Your task to perform on an android device: turn off improve location accuracy Image 0: 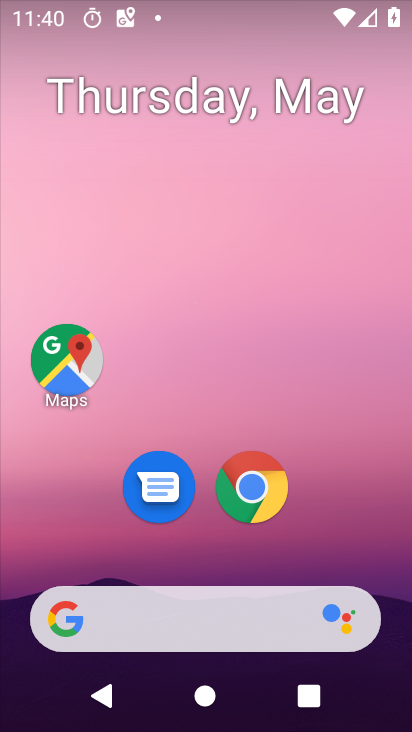
Step 0: drag from (338, 532) to (324, 95)
Your task to perform on an android device: turn off improve location accuracy Image 1: 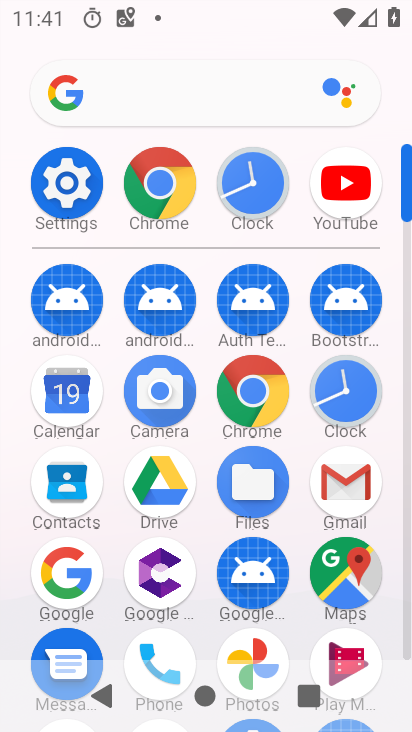
Step 1: click (66, 178)
Your task to perform on an android device: turn off improve location accuracy Image 2: 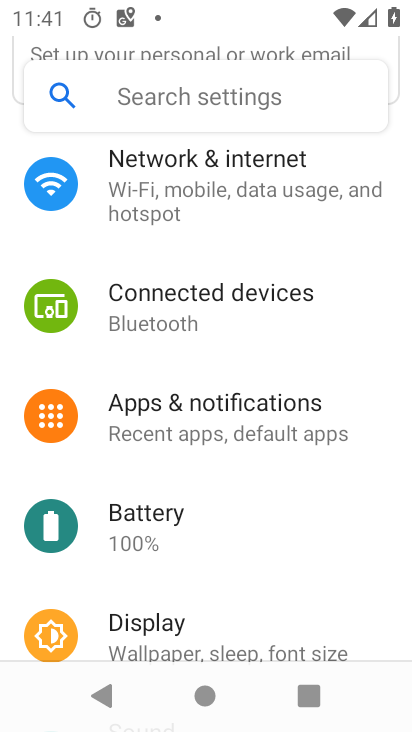
Step 2: drag from (306, 577) to (284, 216)
Your task to perform on an android device: turn off improve location accuracy Image 3: 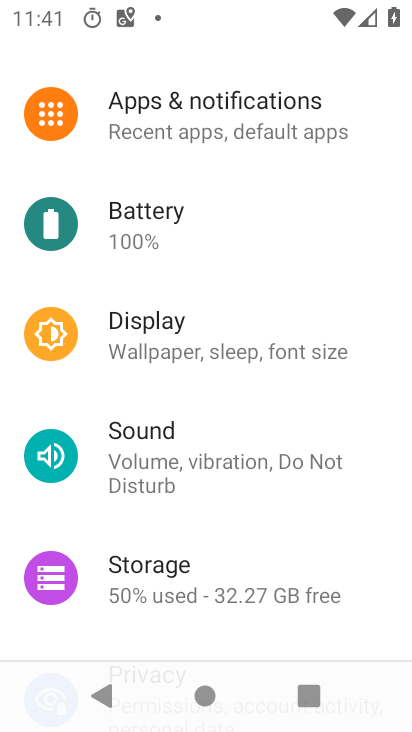
Step 3: drag from (269, 592) to (303, 229)
Your task to perform on an android device: turn off improve location accuracy Image 4: 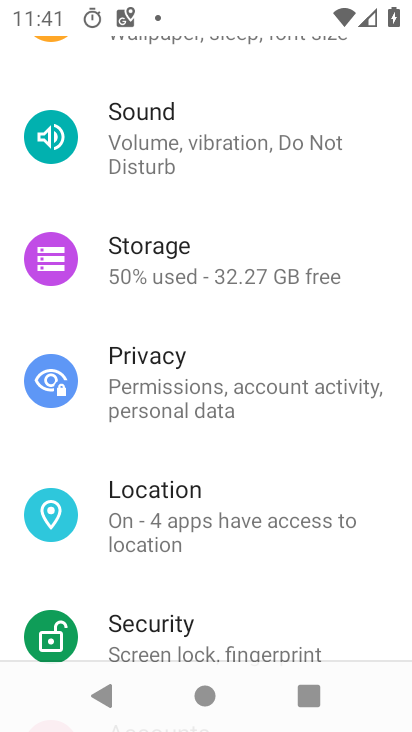
Step 4: click (245, 521)
Your task to perform on an android device: turn off improve location accuracy Image 5: 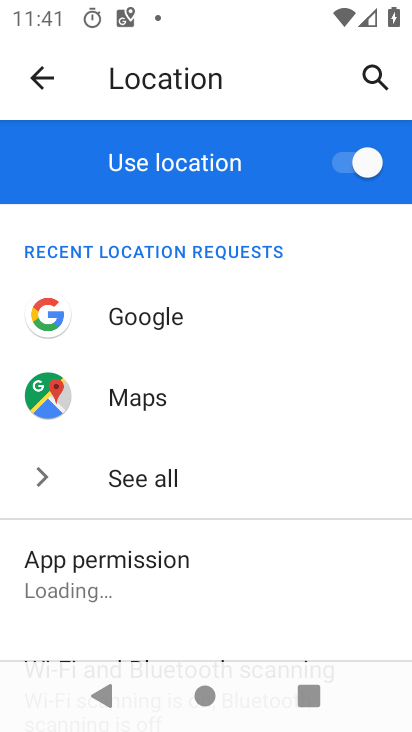
Step 5: drag from (246, 583) to (224, 252)
Your task to perform on an android device: turn off improve location accuracy Image 6: 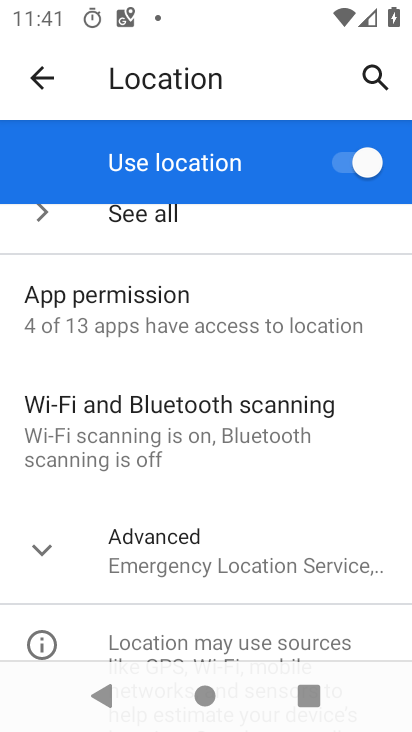
Step 6: click (279, 564)
Your task to perform on an android device: turn off improve location accuracy Image 7: 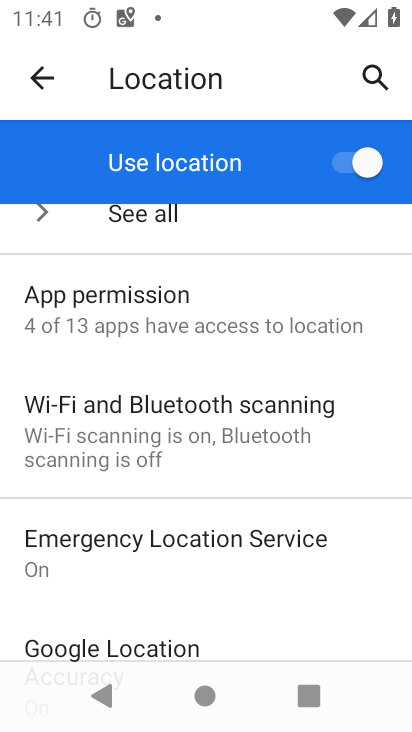
Step 7: drag from (279, 564) to (274, 262)
Your task to perform on an android device: turn off improve location accuracy Image 8: 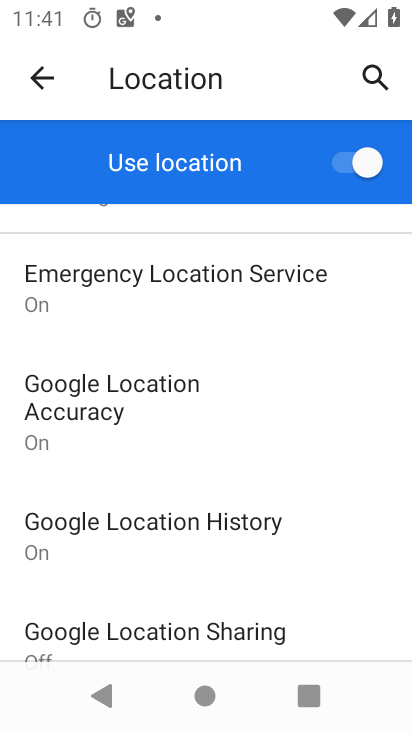
Step 8: click (130, 404)
Your task to perform on an android device: turn off improve location accuracy Image 9: 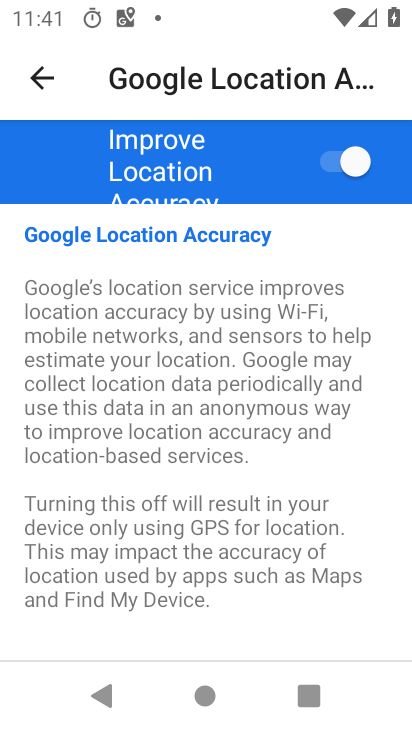
Step 9: click (330, 169)
Your task to perform on an android device: turn off improve location accuracy Image 10: 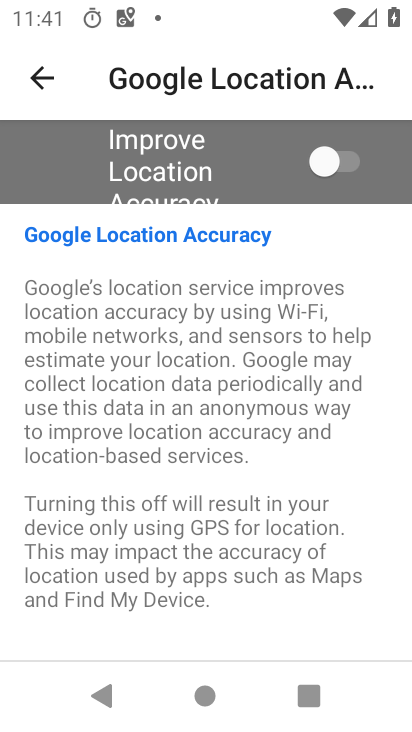
Step 10: task complete